Your task to perform on an android device: Go to settings Image 0: 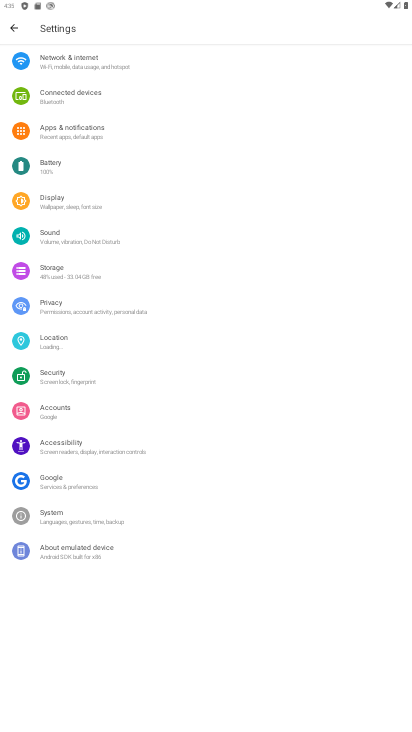
Step 0: press home button
Your task to perform on an android device: Go to settings Image 1: 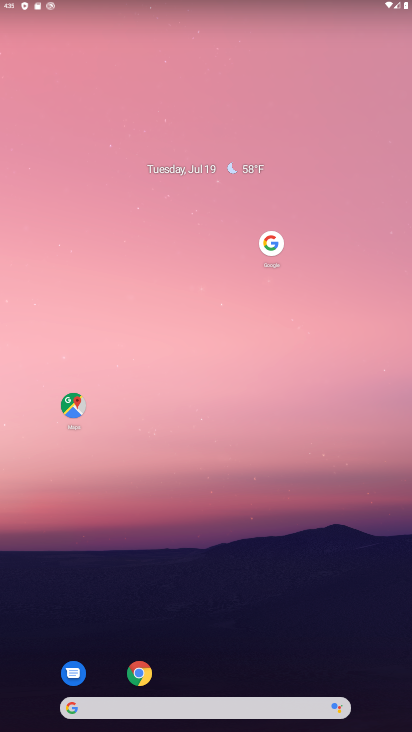
Step 1: drag from (289, 602) to (239, 40)
Your task to perform on an android device: Go to settings Image 2: 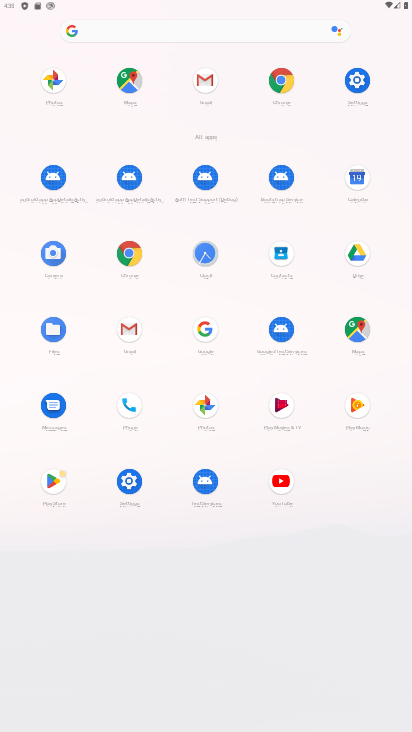
Step 2: click (357, 83)
Your task to perform on an android device: Go to settings Image 3: 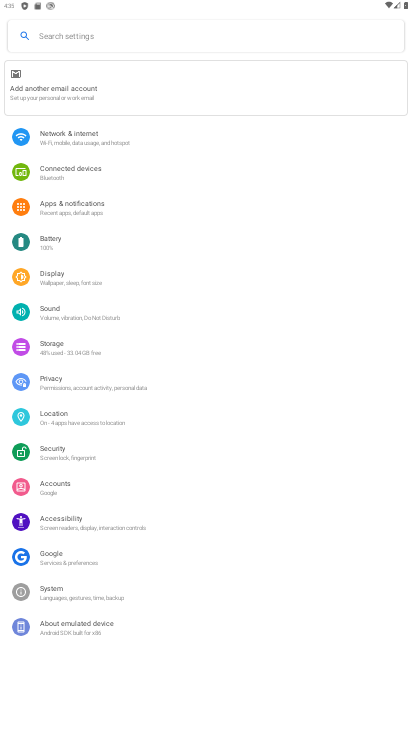
Step 3: task complete